Your task to perform on an android device: turn pop-ups on in chrome Image 0: 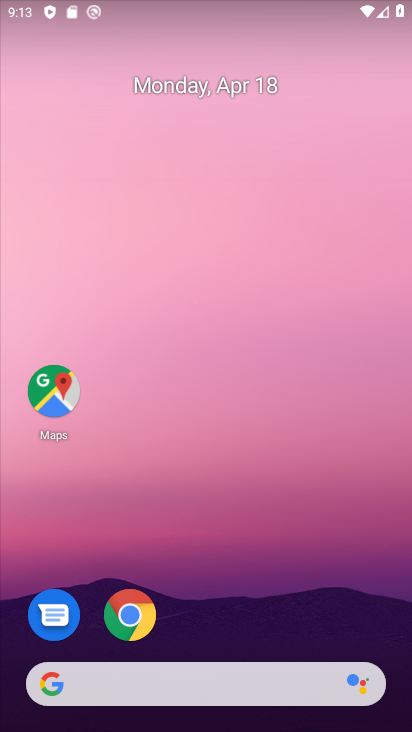
Step 0: click (127, 612)
Your task to perform on an android device: turn pop-ups on in chrome Image 1: 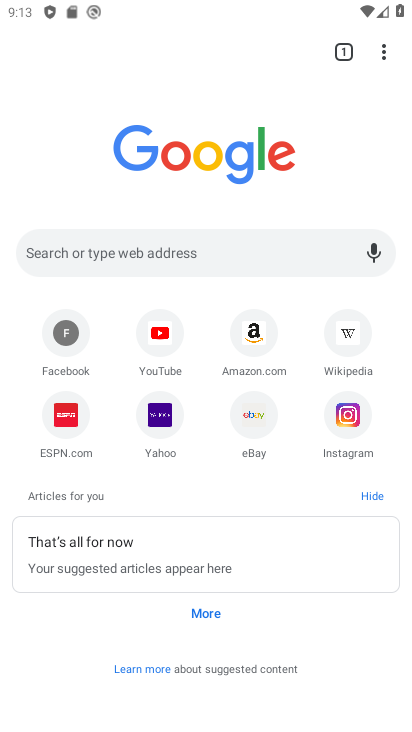
Step 1: click (383, 46)
Your task to perform on an android device: turn pop-ups on in chrome Image 2: 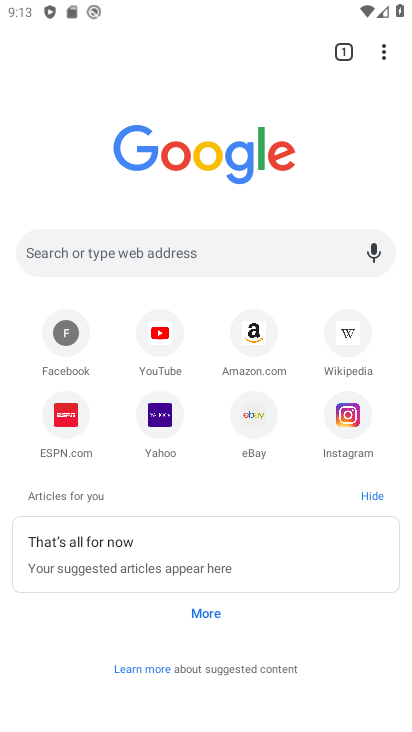
Step 2: click (377, 53)
Your task to perform on an android device: turn pop-ups on in chrome Image 3: 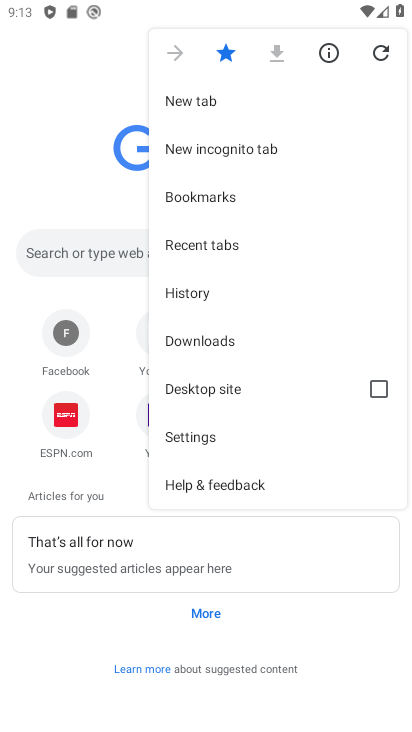
Step 3: click (191, 436)
Your task to perform on an android device: turn pop-ups on in chrome Image 4: 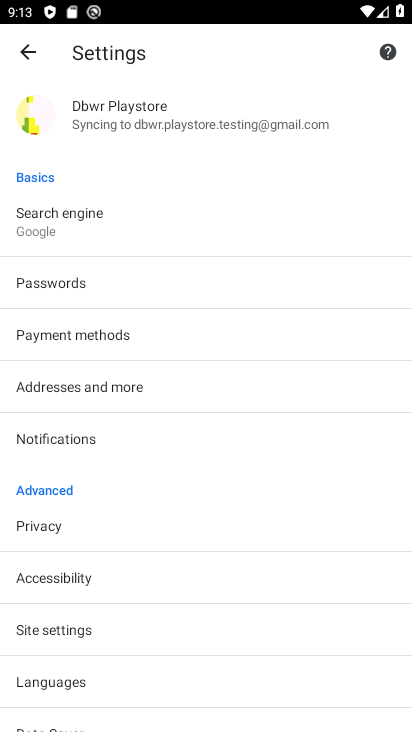
Step 4: click (61, 629)
Your task to perform on an android device: turn pop-ups on in chrome Image 5: 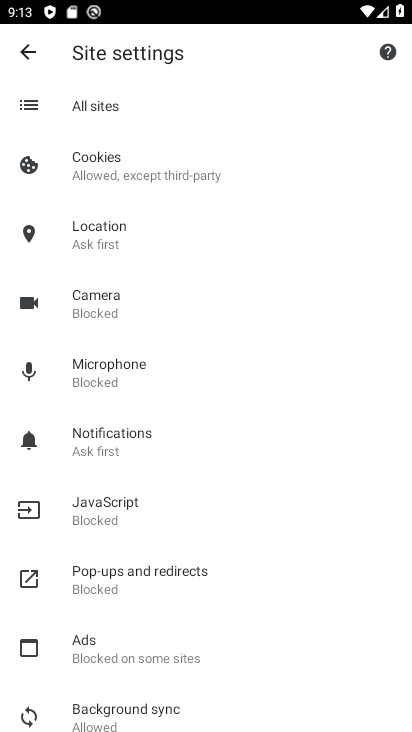
Step 5: click (121, 567)
Your task to perform on an android device: turn pop-ups on in chrome Image 6: 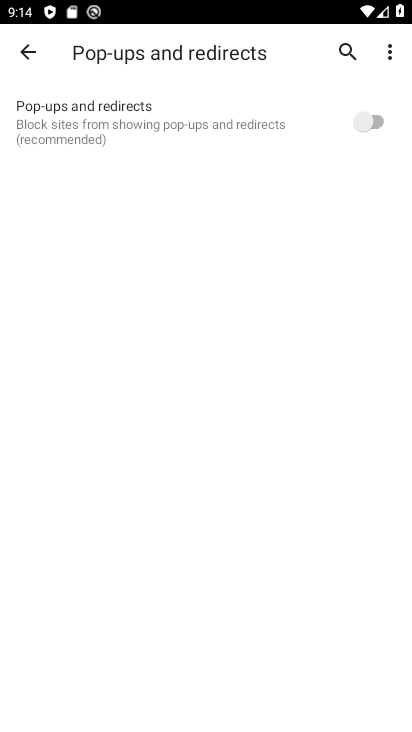
Step 6: click (380, 122)
Your task to perform on an android device: turn pop-ups on in chrome Image 7: 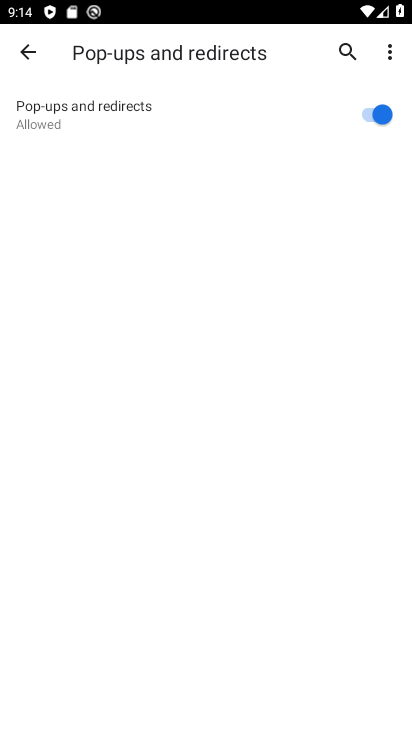
Step 7: task complete